Your task to perform on an android device: Go to eBay Image 0: 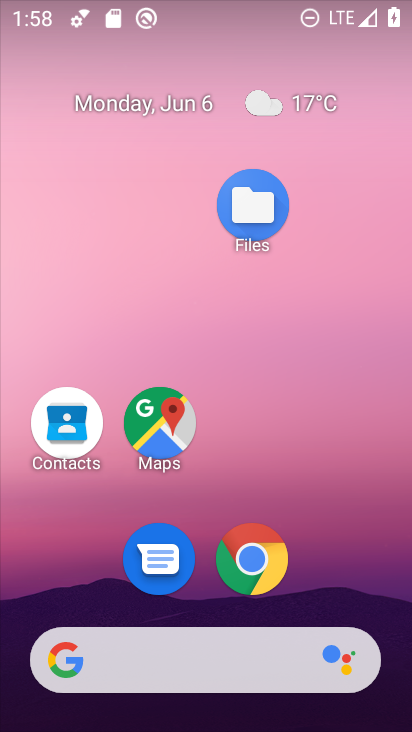
Step 0: click (273, 567)
Your task to perform on an android device: Go to eBay Image 1: 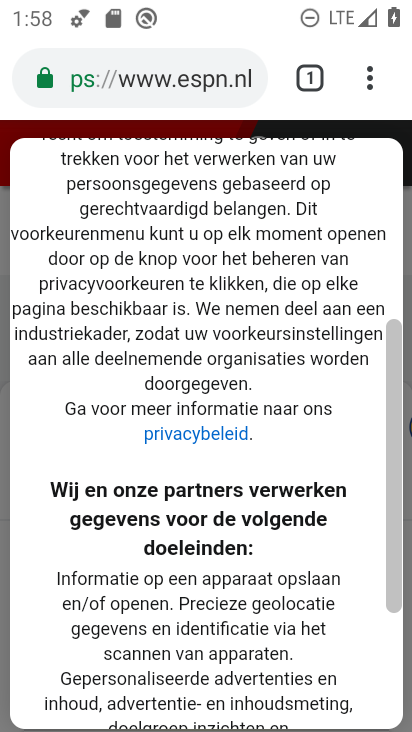
Step 1: click (197, 86)
Your task to perform on an android device: Go to eBay Image 2: 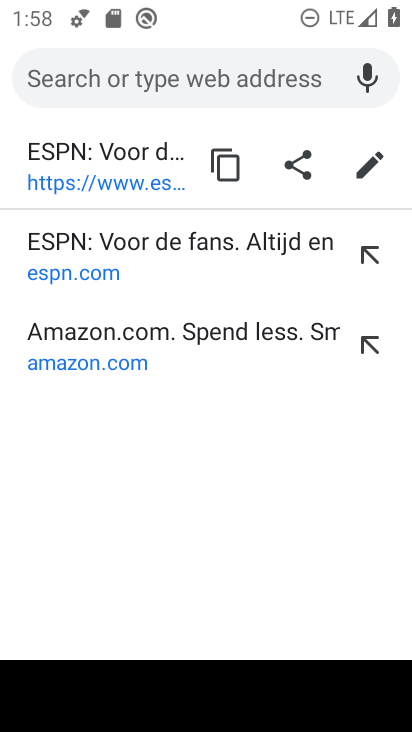
Step 2: type "ebay"
Your task to perform on an android device: Go to eBay Image 3: 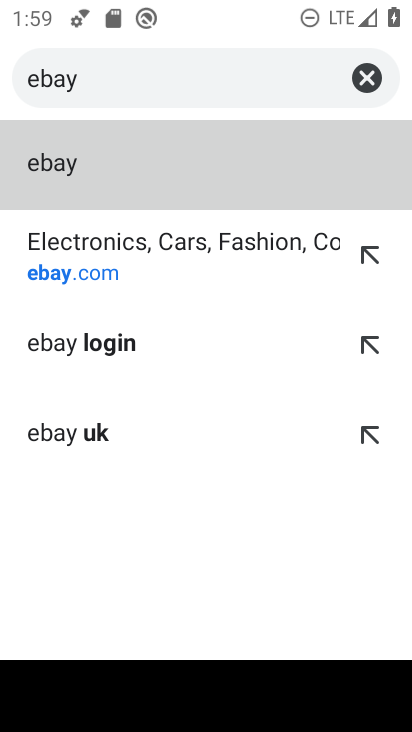
Step 3: click (150, 270)
Your task to perform on an android device: Go to eBay Image 4: 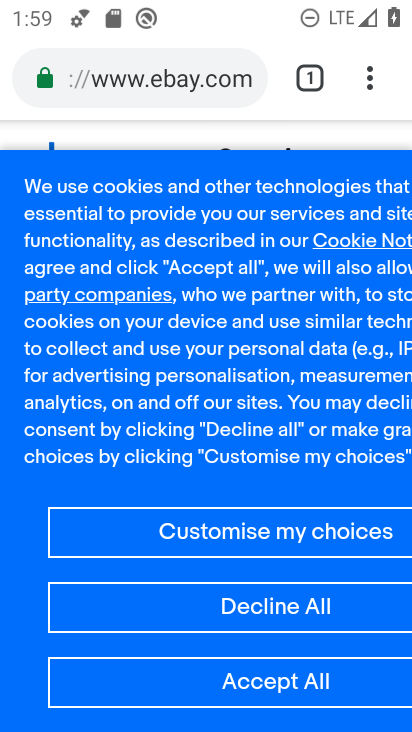
Step 4: task complete